Your task to perform on an android device: turn off picture-in-picture Image 0: 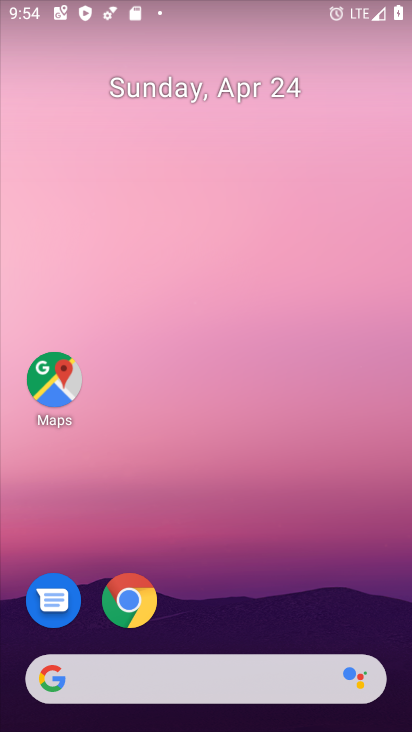
Step 0: click (120, 593)
Your task to perform on an android device: turn off picture-in-picture Image 1: 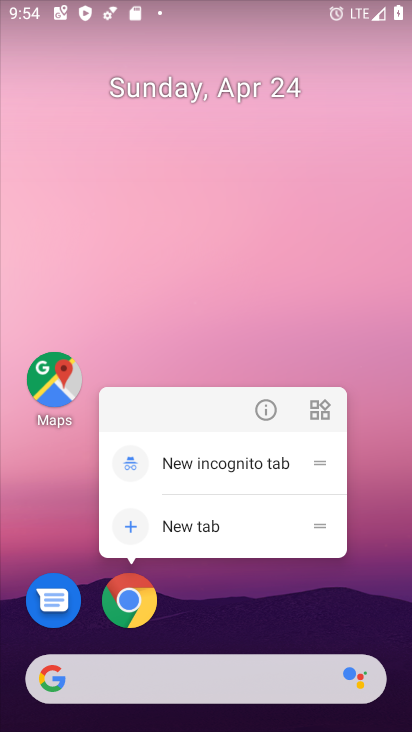
Step 1: click (262, 405)
Your task to perform on an android device: turn off picture-in-picture Image 2: 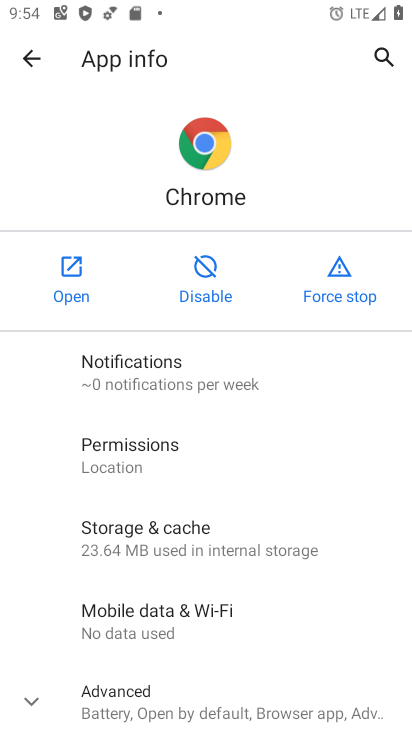
Step 2: drag from (194, 530) to (285, 121)
Your task to perform on an android device: turn off picture-in-picture Image 3: 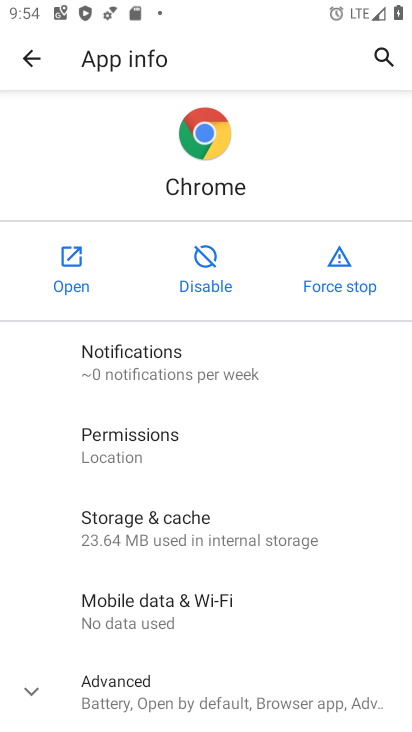
Step 3: click (168, 694)
Your task to perform on an android device: turn off picture-in-picture Image 4: 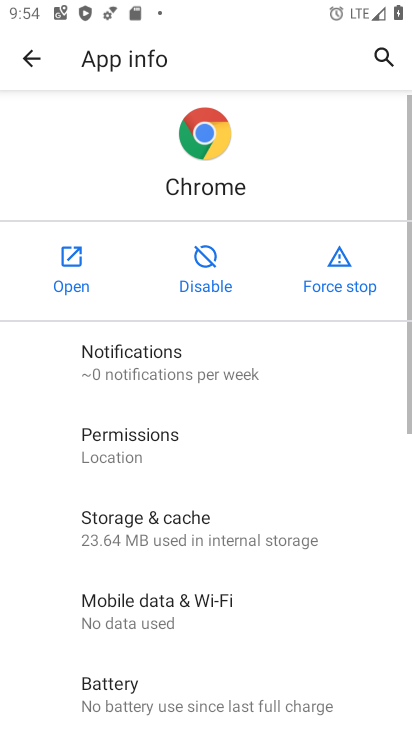
Step 4: drag from (161, 636) to (246, 161)
Your task to perform on an android device: turn off picture-in-picture Image 5: 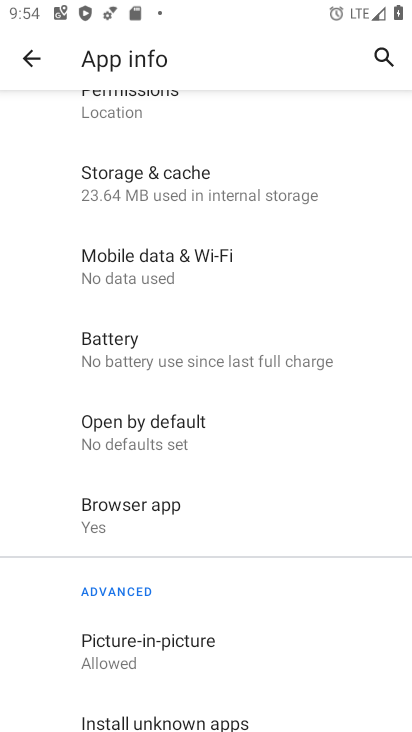
Step 5: drag from (196, 584) to (213, 334)
Your task to perform on an android device: turn off picture-in-picture Image 6: 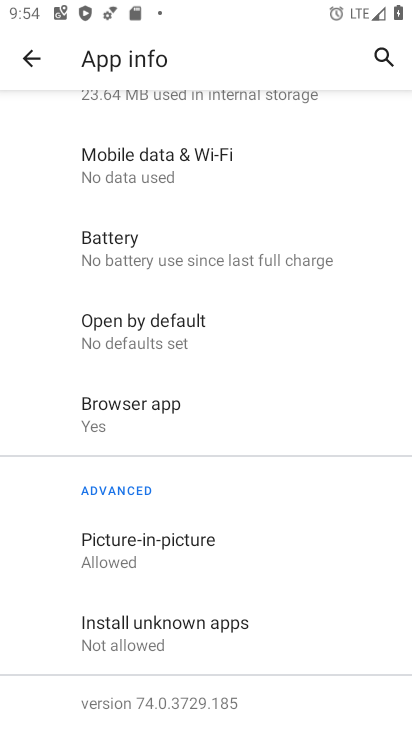
Step 6: click (187, 544)
Your task to perform on an android device: turn off picture-in-picture Image 7: 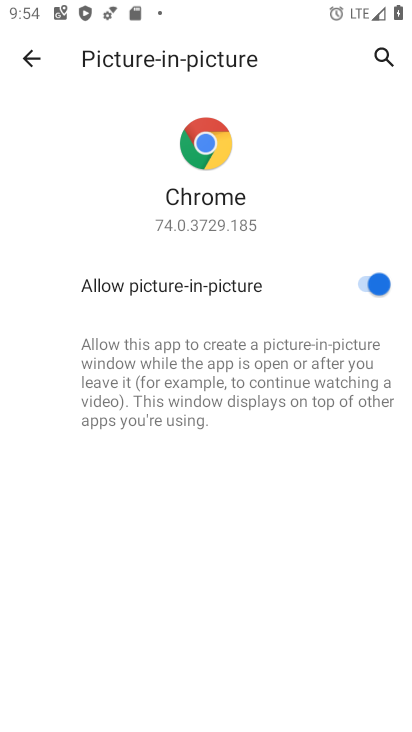
Step 7: click (364, 282)
Your task to perform on an android device: turn off picture-in-picture Image 8: 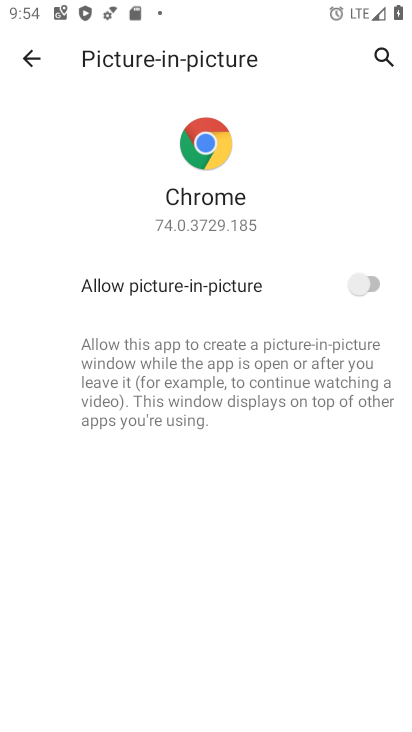
Step 8: task complete